Your task to perform on an android device: uninstall "The Home Depot" Image 0: 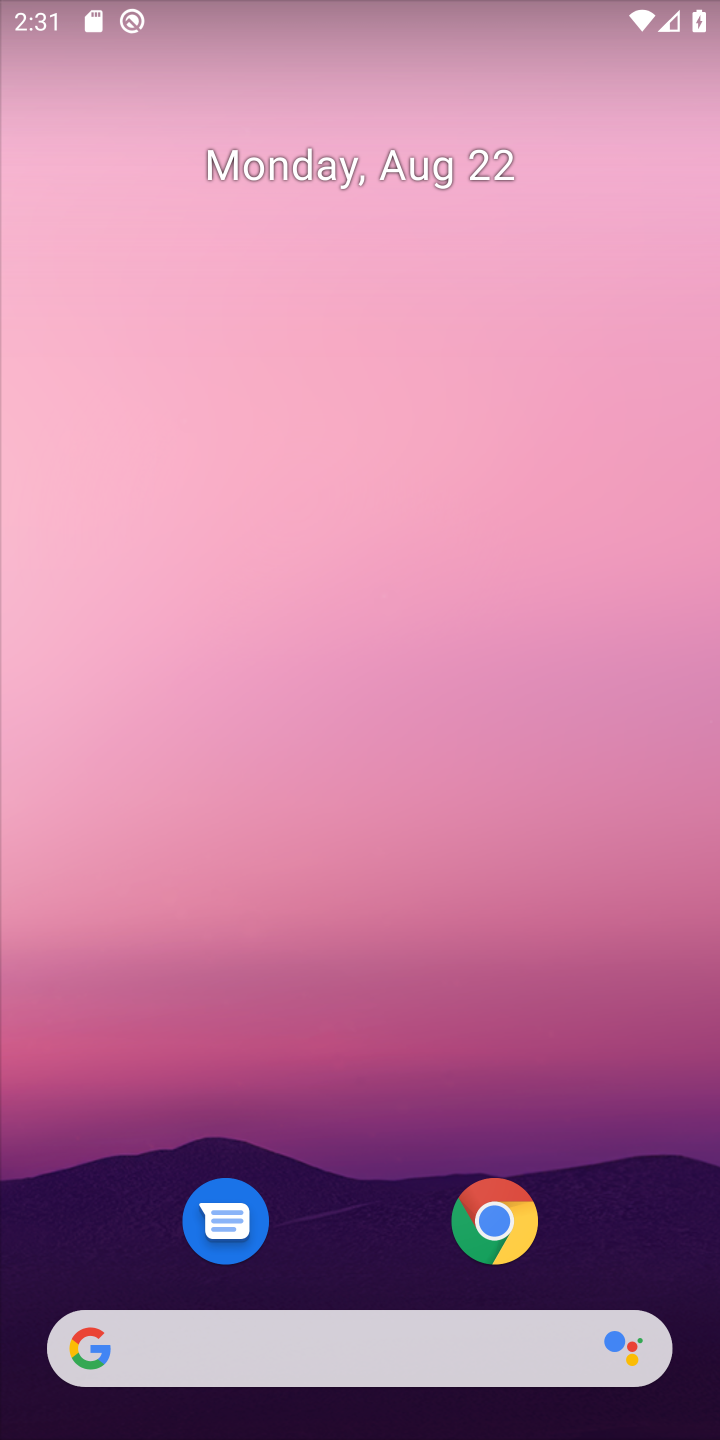
Step 0: drag from (370, 1219) to (373, 45)
Your task to perform on an android device: uninstall "The Home Depot" Image 1: 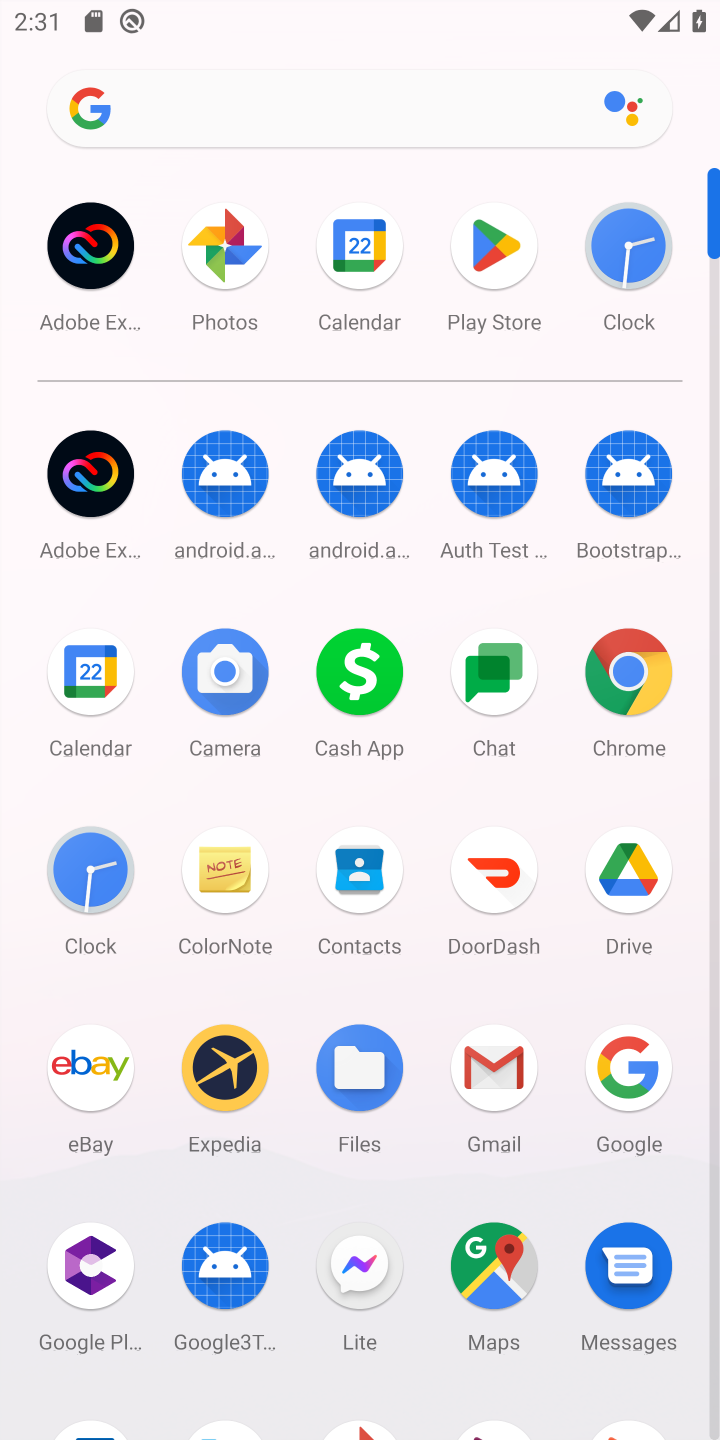
Step 1: click (482, 238)
Your task to perform on an android device: uninstall "The Home Depot" Image 2: 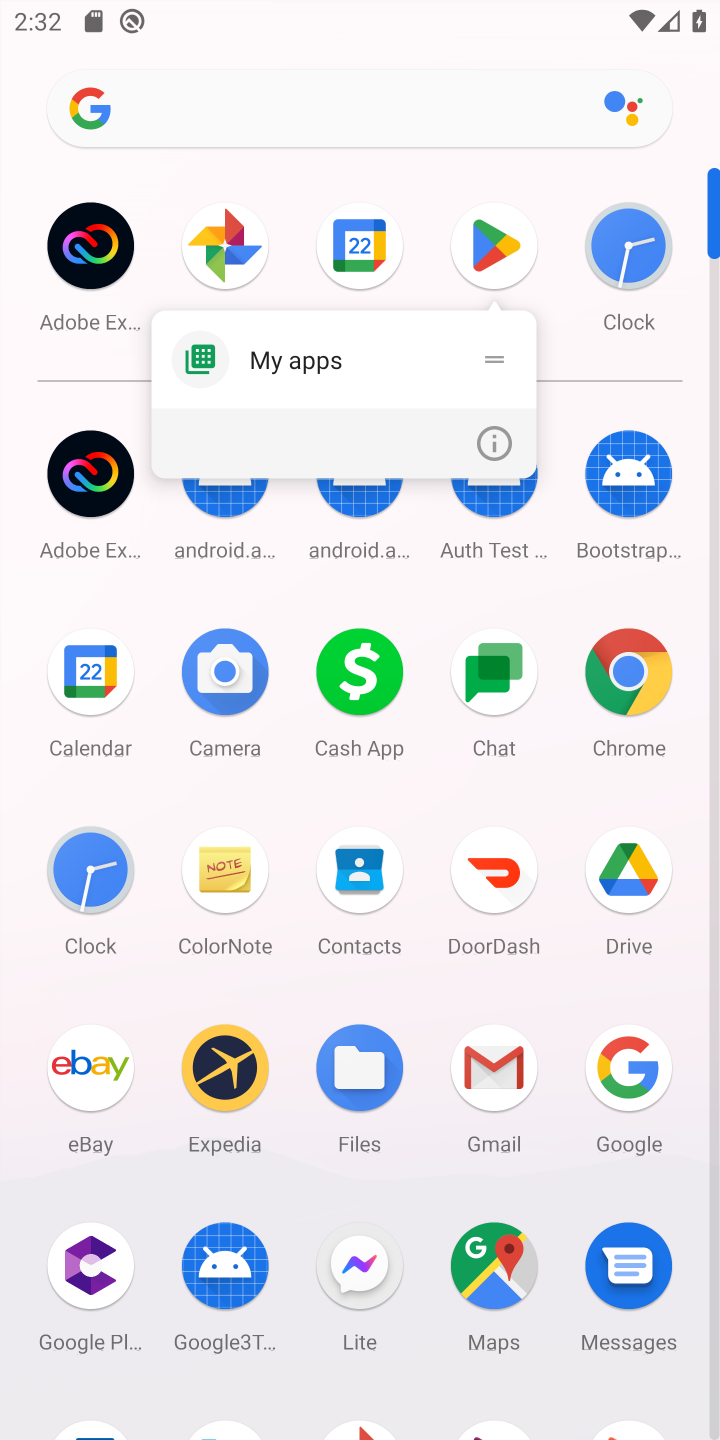
Step 2: click (500, 238)
Your task to perform on an android device: uninstall "The Home Depot" Image 3: 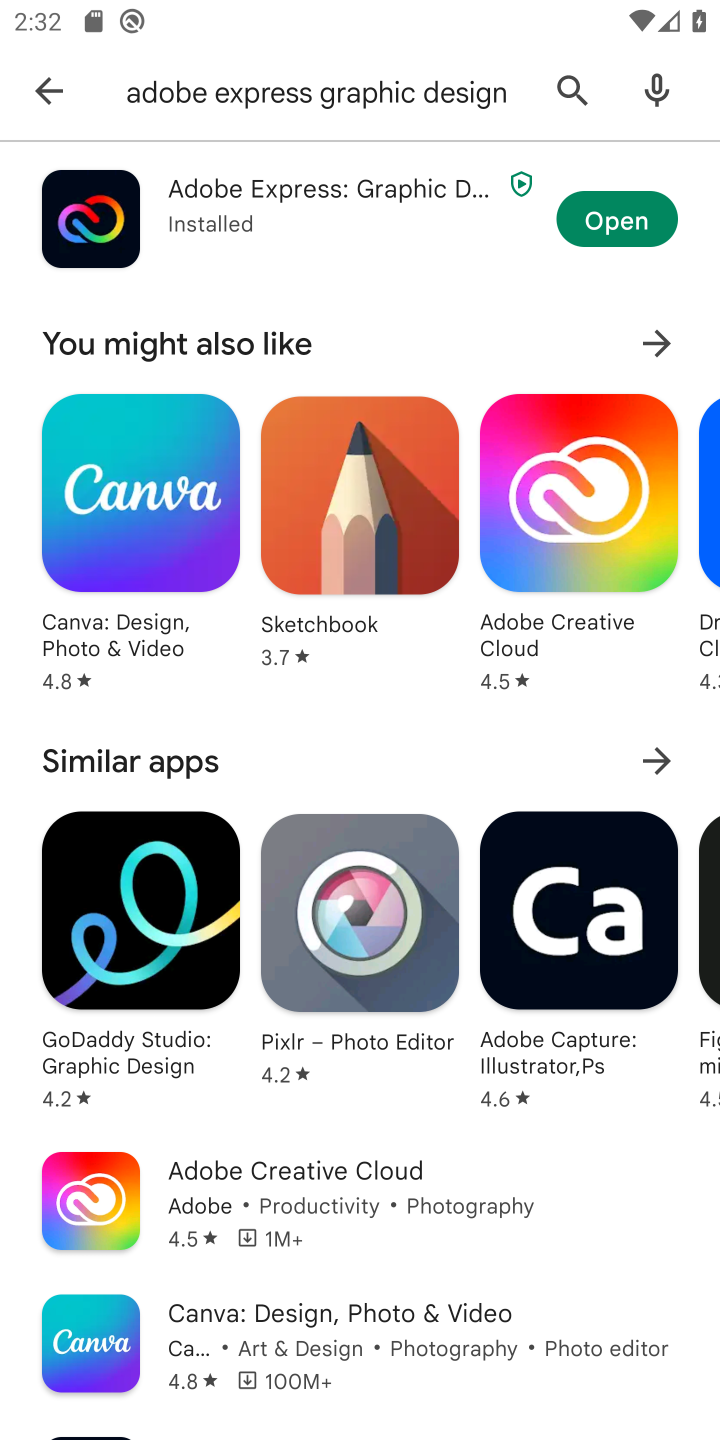
Step 3: click (563, 86)
Your task to perform on an android device: uninstall "The Home Depot" Image 4: 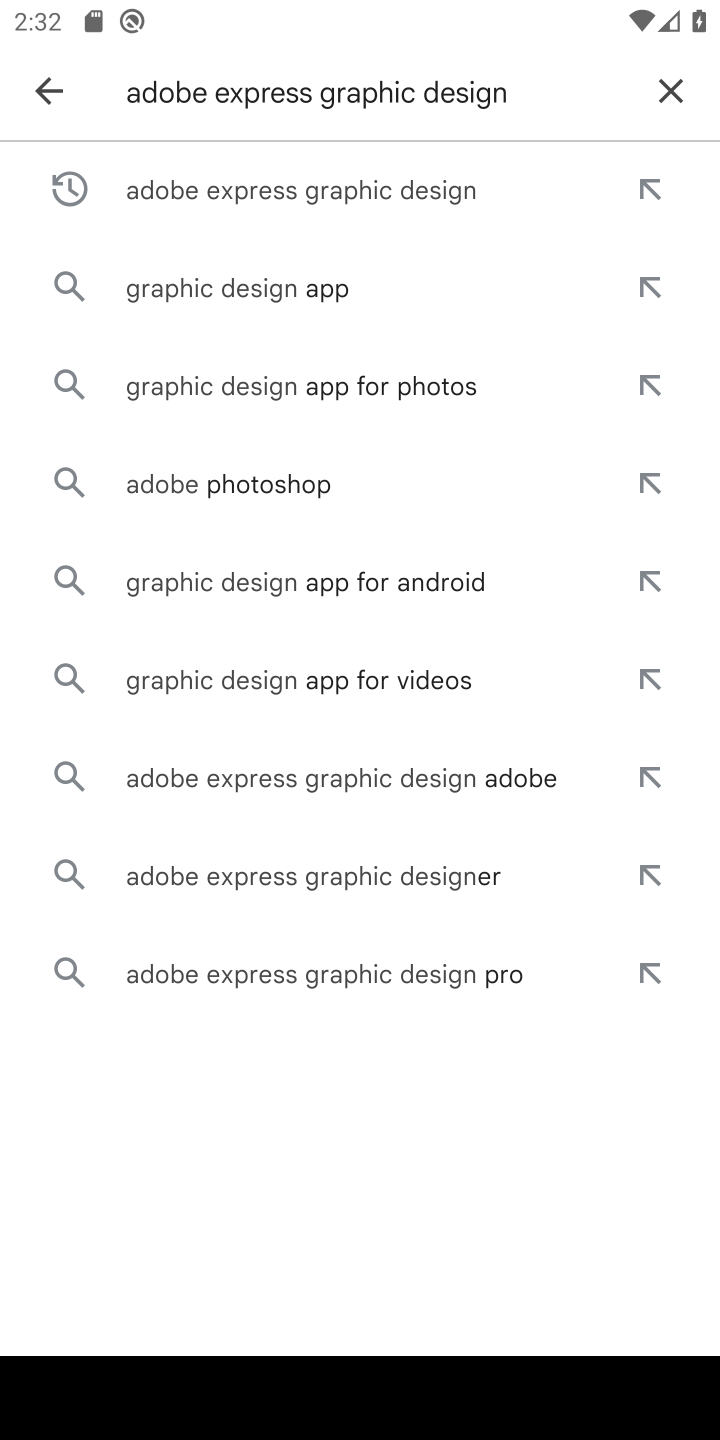
Step 4: click (666, 86)
Your task to perform on an android device: uninstall "The Home Depot" Image 5: 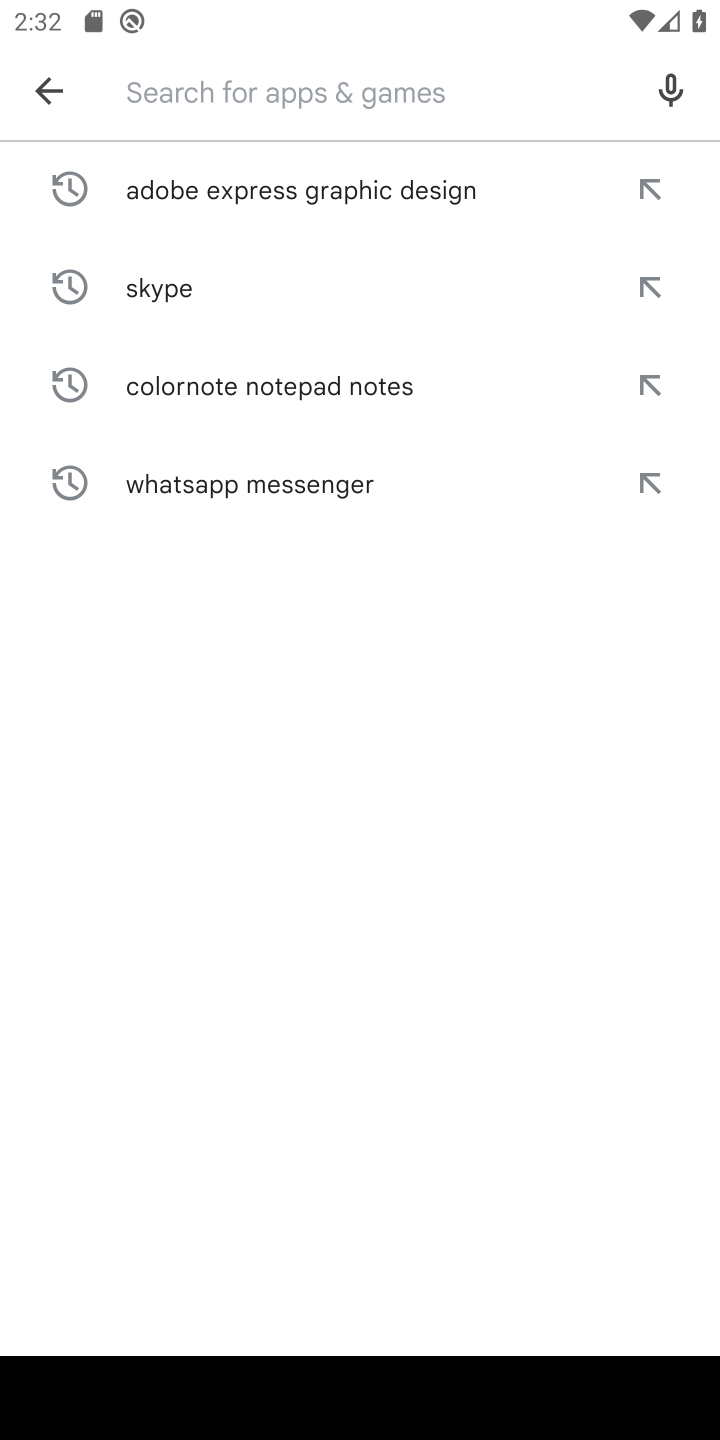
Step 5: type "The Home Depot"
Your task to perform on an android device: uninstall "The Home Depot" Image 6: 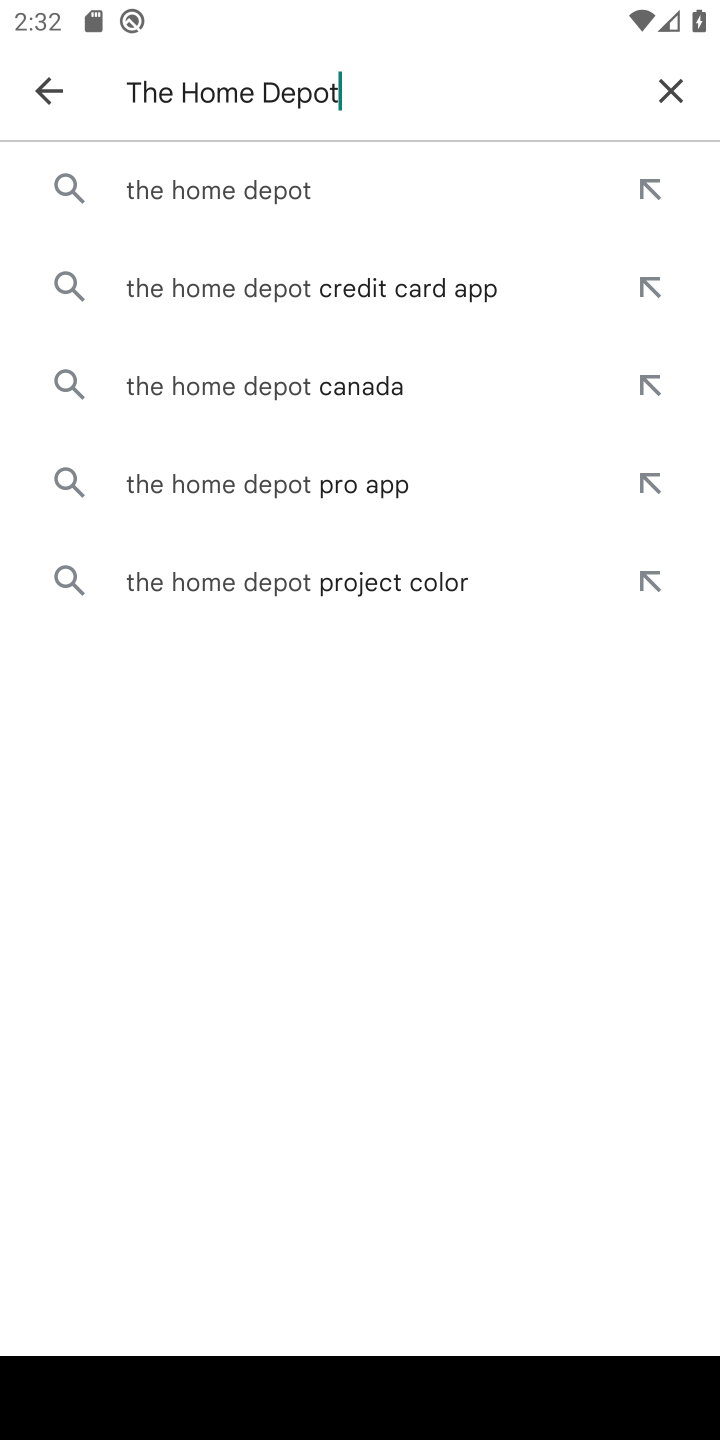
Step 6: click (253, 177)
Your task to perform on an android device: uninstall "The Home Depot" Image 7: 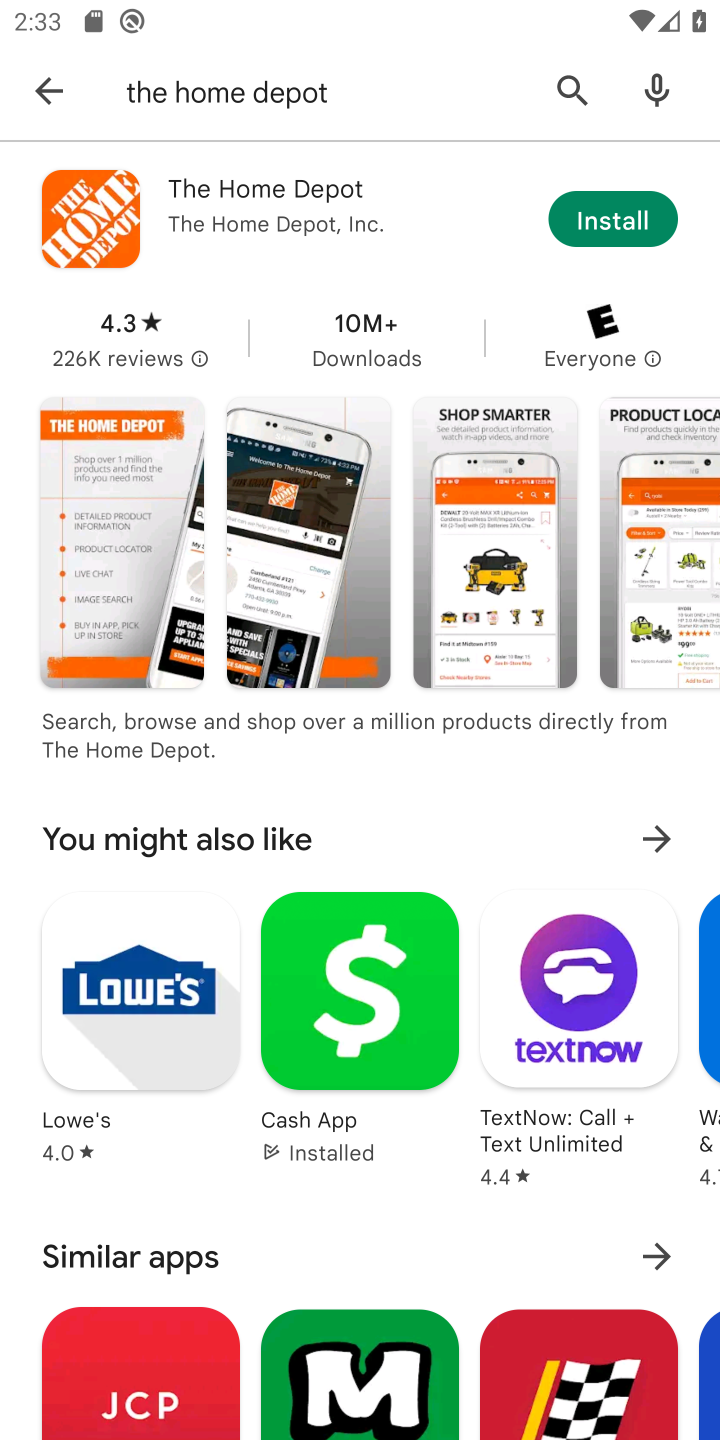
Step 7: task complete